Your task to perform on an android device: delete the emails in spam in the gmail app Image 0: 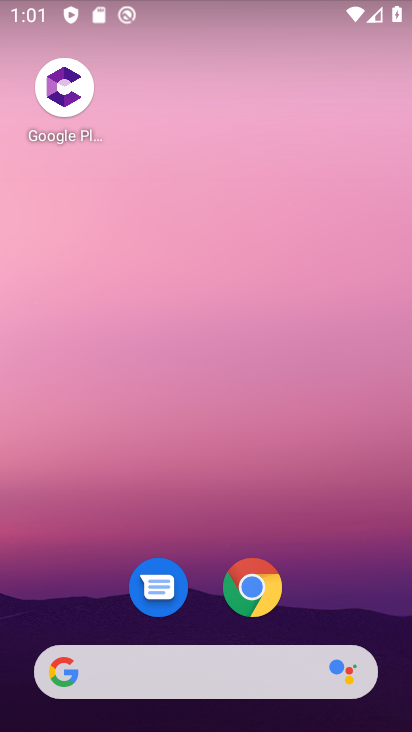
Step 0: drag from (341, 475) to (224, 5)
Your task to perform on an android device: delete the emails in spam in the gmail app Image 1: 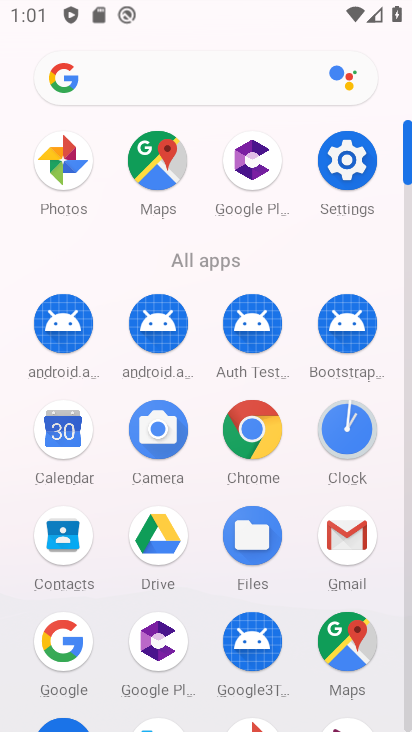
Step 1: click (342, 531)
Your task to perform on an android device: delete the emails in spam in the gmail app Image 2: 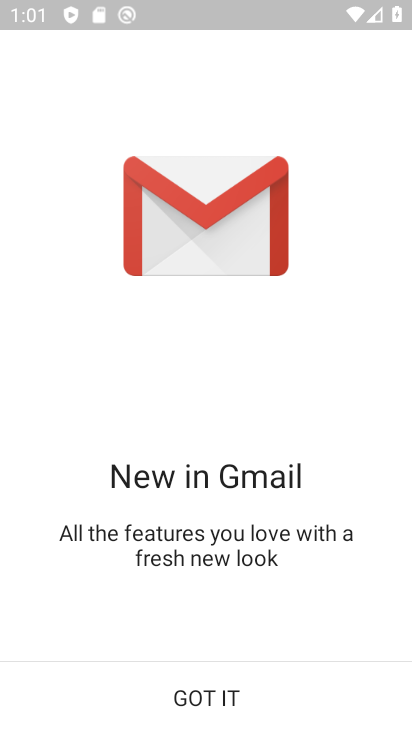
Step 2: click (245, 714)
Your task to perform on an android device: delete the emails in spam in the gmail app Image 3: 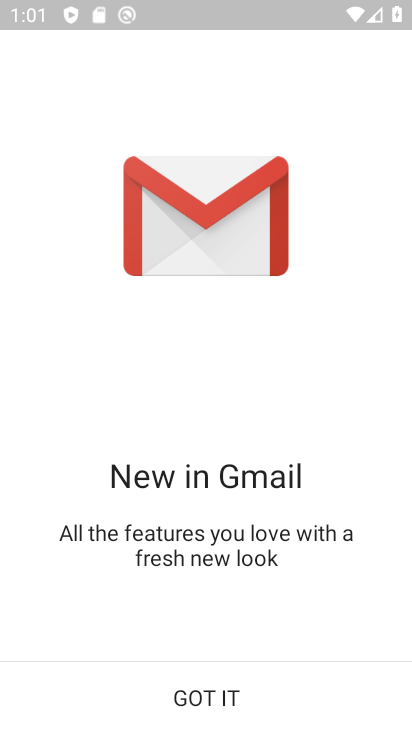
Step 3: click (240, 676)
Your task to perform on an android device: delete the emails in spam in the gmail app Image 4: 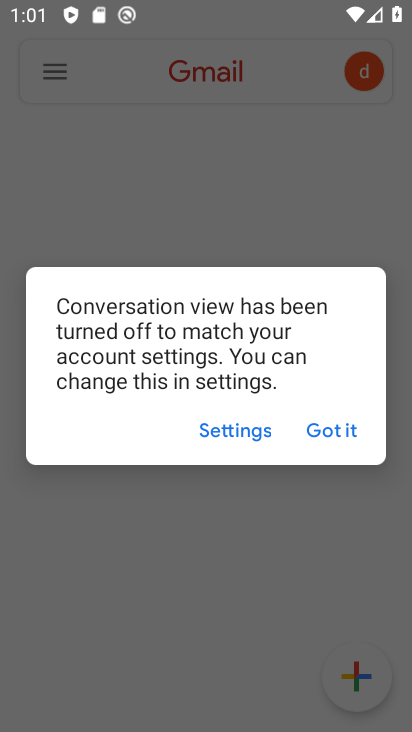
Step 4: click (319, 434)
Your task to perform on an android device: delete the emails in spam in the gmail app Image 5: 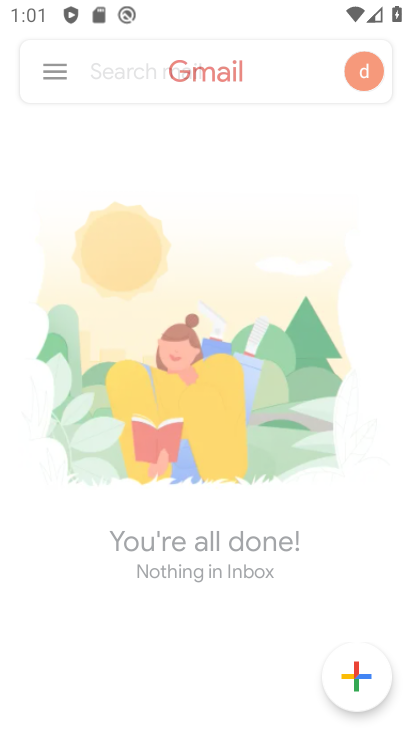
Step 5: click (53, 69)
Your task to perform on an android device: delete the emails in spam in the gmail app Image 6: 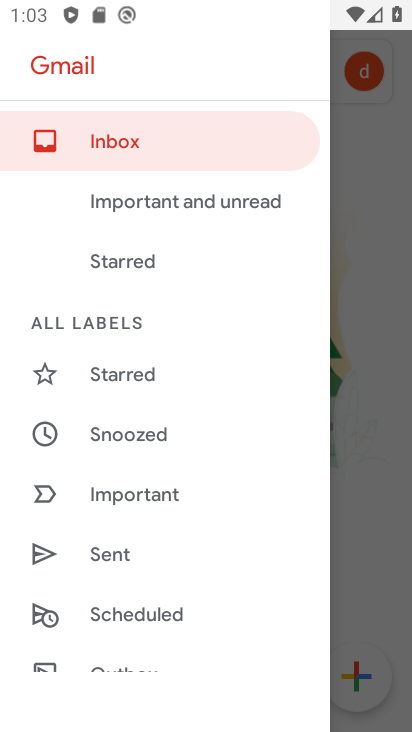
Step 6: click (162, 126)
Your task to perform on an android device: delete the emails in spam in the gmail app Image 7: 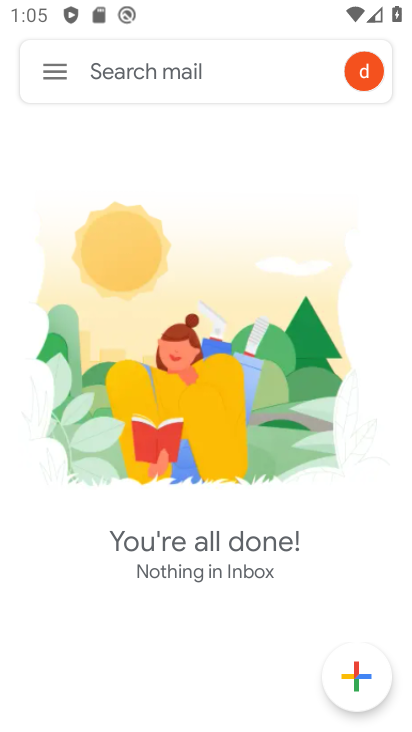
Step 7: task complete